Your task to perform on an android device: Show me recent news Image 0: 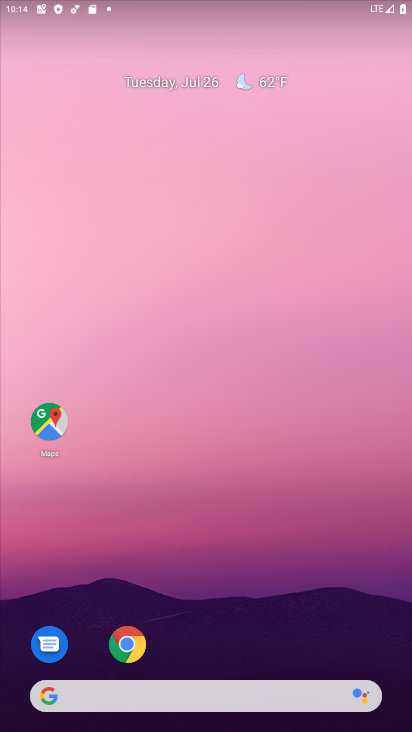
Step 0: click (130, 706)
Your task to perform on an android device: Show me recent news Image 1: 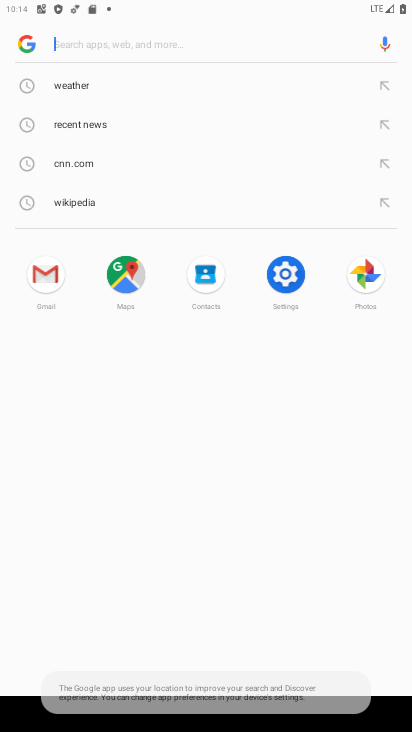
Step 1: click (89, 133)
Your task to perform on an android device: Show me recent news Image 2: 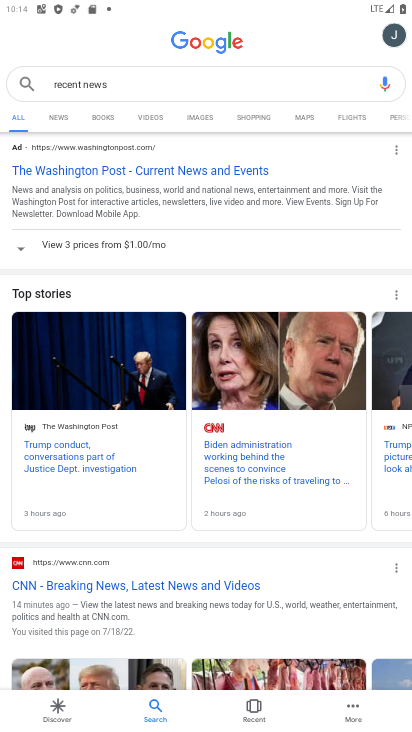
Step 2: drag from (156, 547) to (160, 350)
Your task to perform on an android device: Show me recent news Image 3: 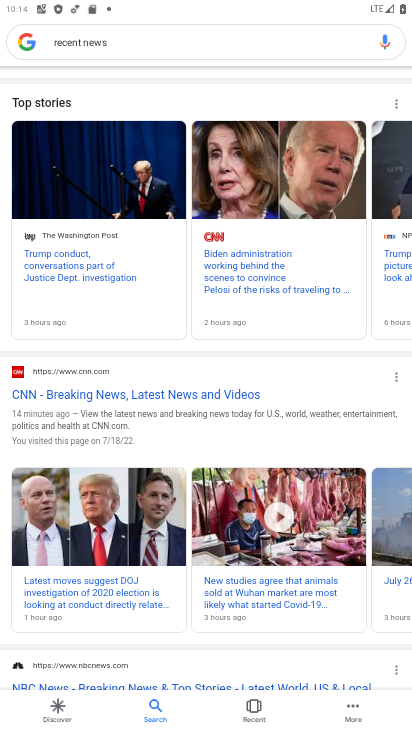
Step 3: click (76, 549)
Your task to perform on an android device: Show me recent news Image 4: 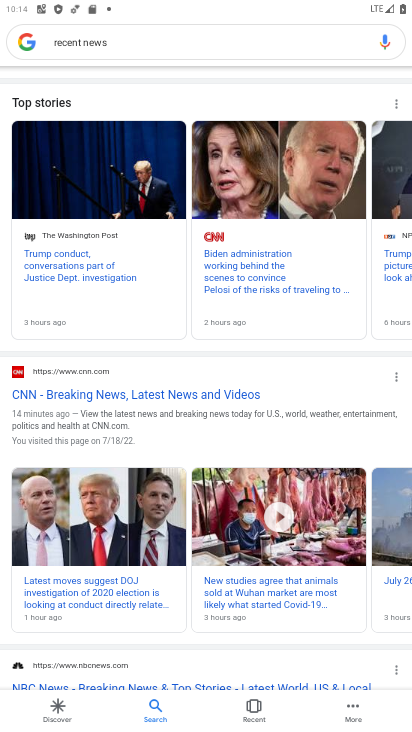
Step 4: click (84, 598)
Your task to perform on an android device: Show me recent news Image 5: 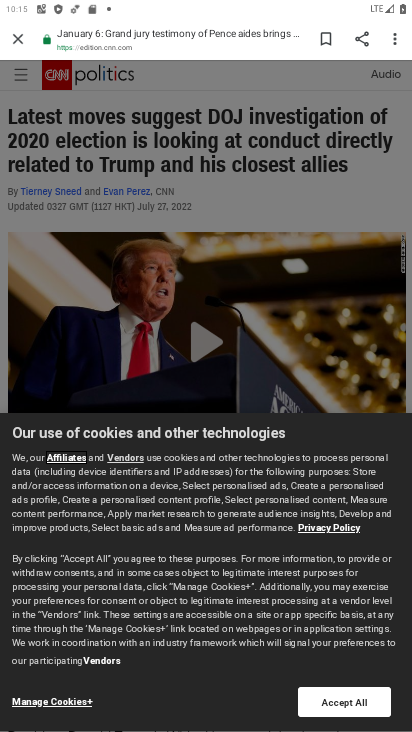
Step 5: task complete